Your task to perform on an android device: Search for a new lipgloss Image 0: 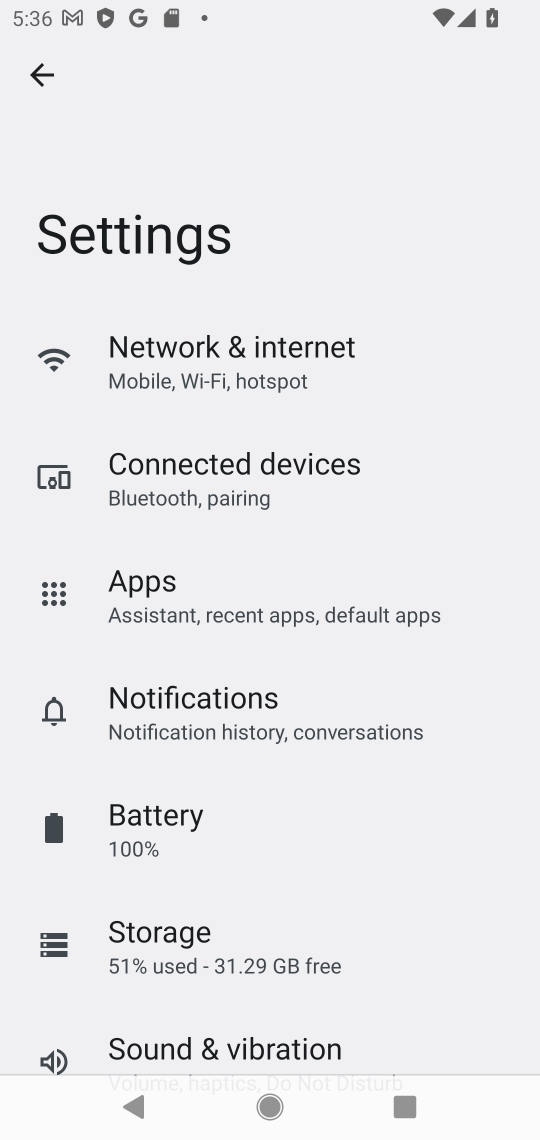
Step 0: press home button
Your task to perform on an android device: Search for a new lipgloss Image 1: 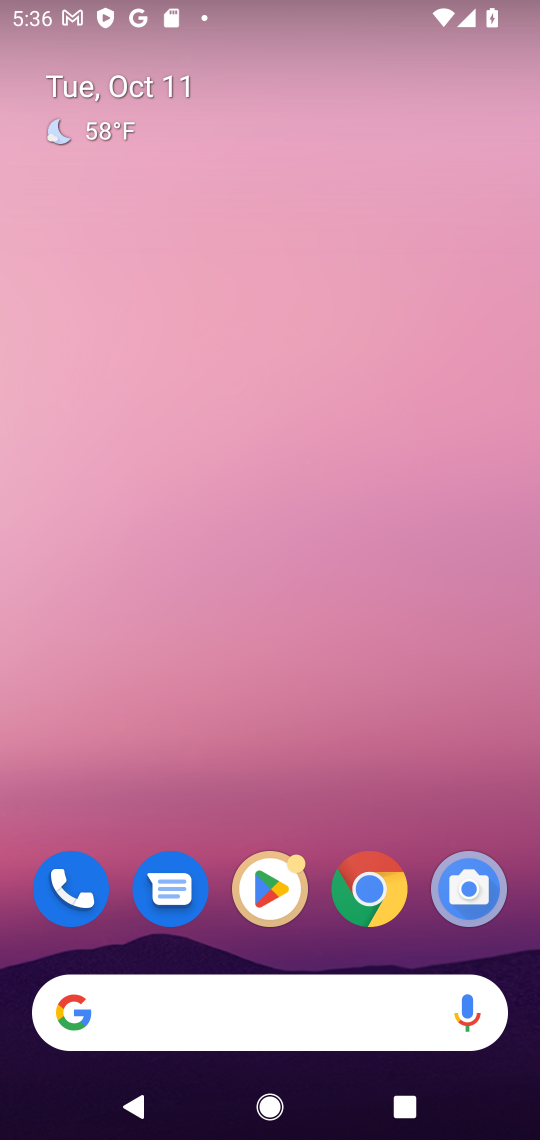
Step 1: drag from (250, 483) to (250, 398)
Your task to perform on an android device: Search for a new lipgloss Image 2: 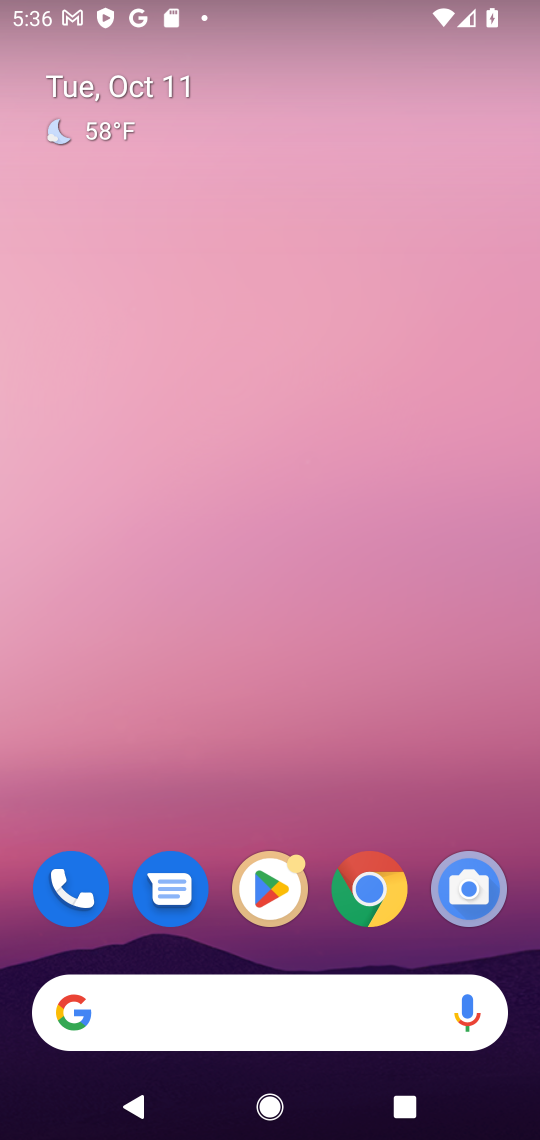
Step 2: drag from (254, 973) to (357, 155)
Your task to perform on an android device: Search for a new lipgloss Image 3: 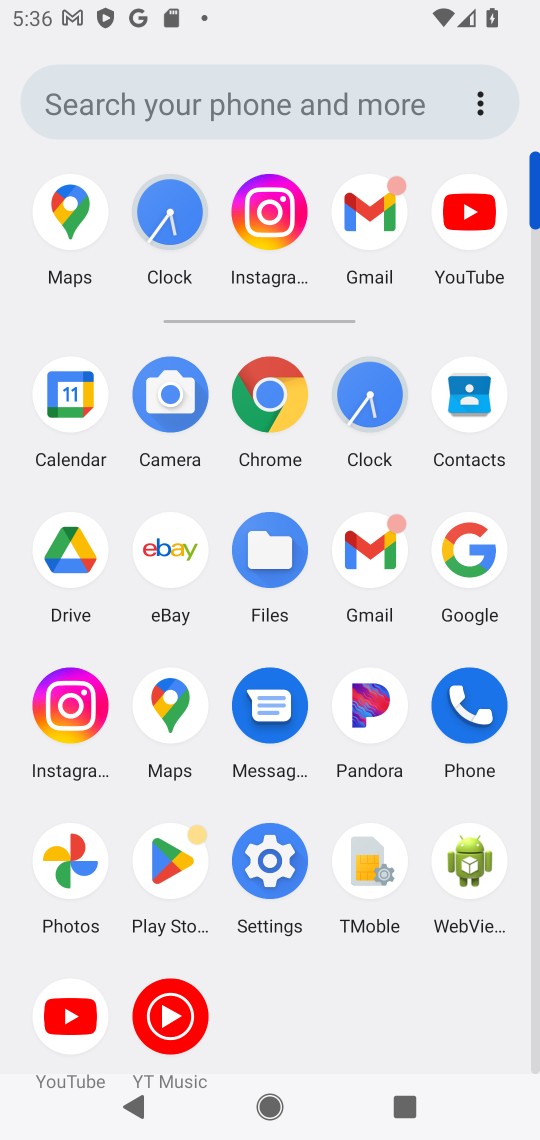
Step 3: click (460, 539)
Your task to perform on an android device: Search for a new lipgloss Image 4: 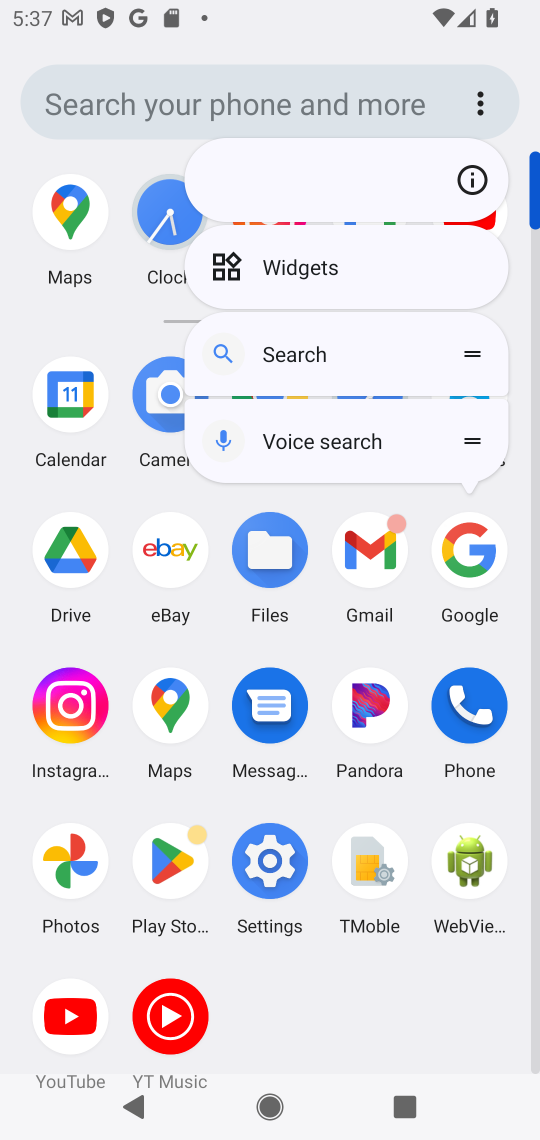
Step 4: click (462, 539)
Your task to perform on an android device: Search for a new lipgloss Image 5: 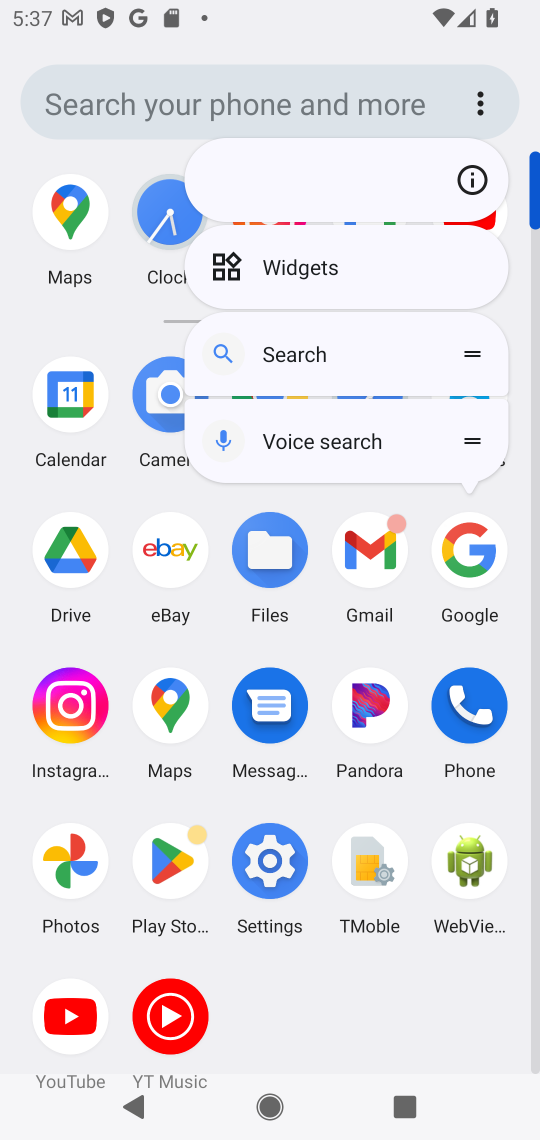
Step 5: click (459, 539)
Your task to perform on an android device: Search for a new lipgloss Image 6: 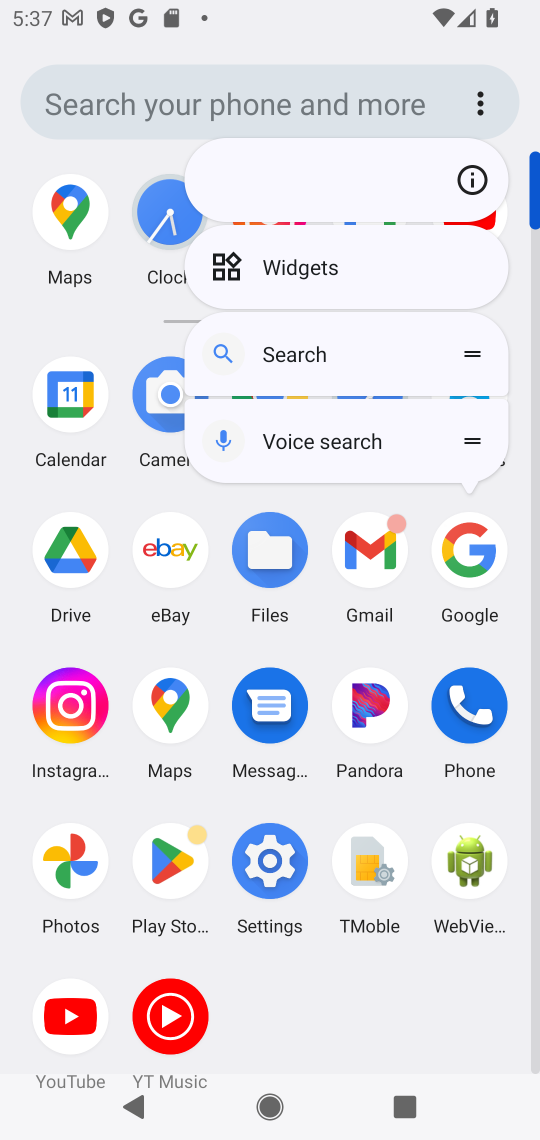
Step 6: click (487, 549)
Your task to perform on an android device: Search for a new lipgloss Image 7: 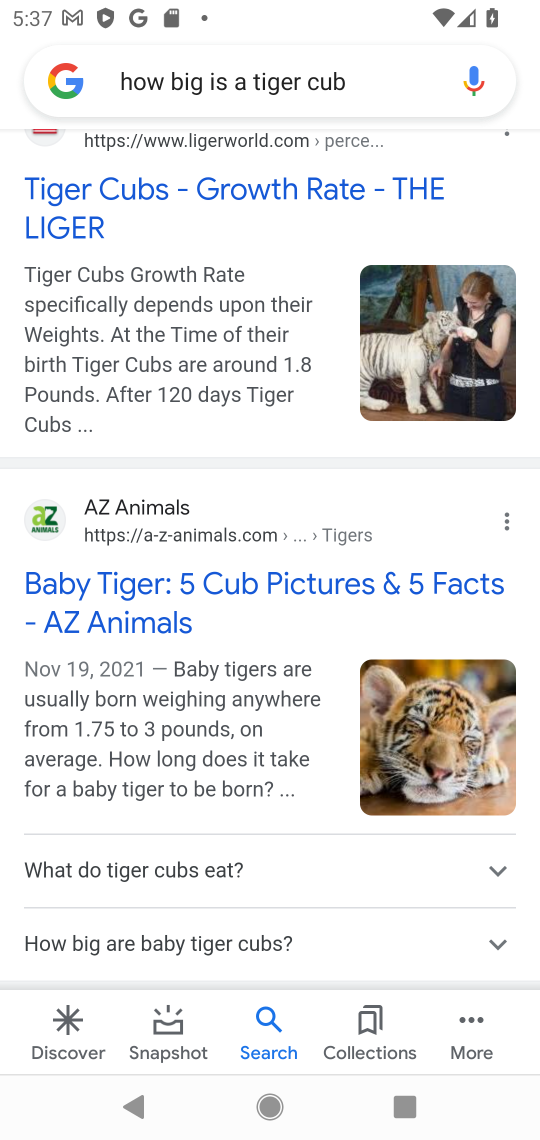
Step 7: click (318, 94)
Your task to perform on an android device: Search for a new lipgloss Image 8: 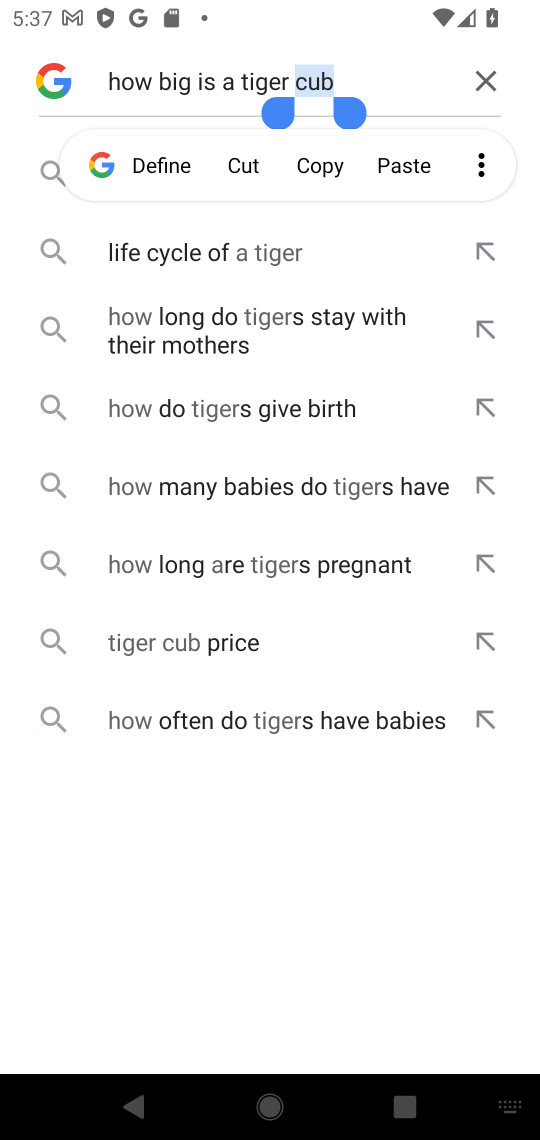
Step 8: click (490, 80)
Your task to perform on an android device: Search for a new lipgloss Image 9: 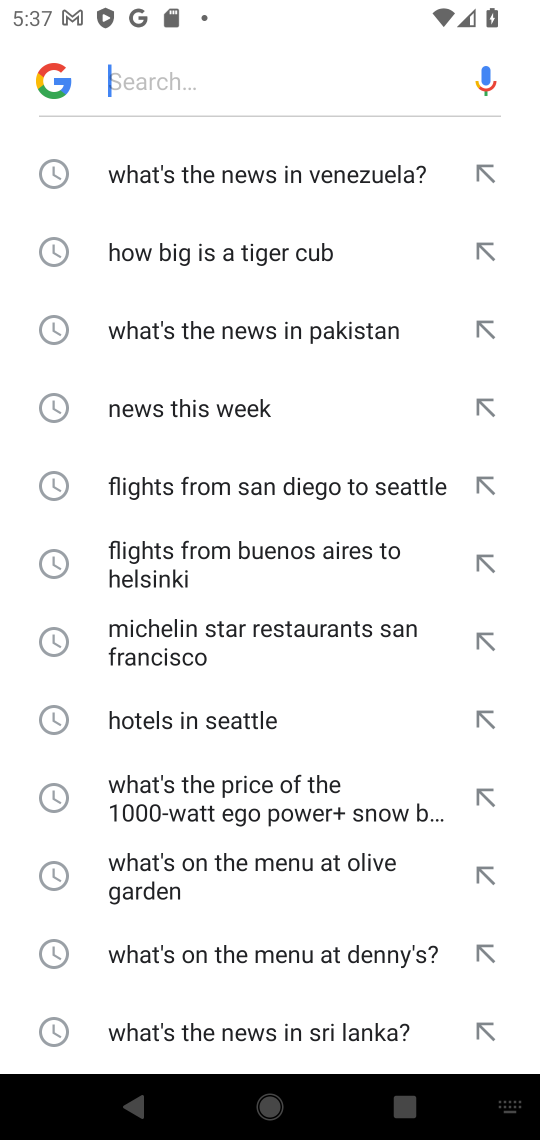
Step 9: click (287, 74)
Your task to perform on an android device: Search for a new lipgloss Image 10: 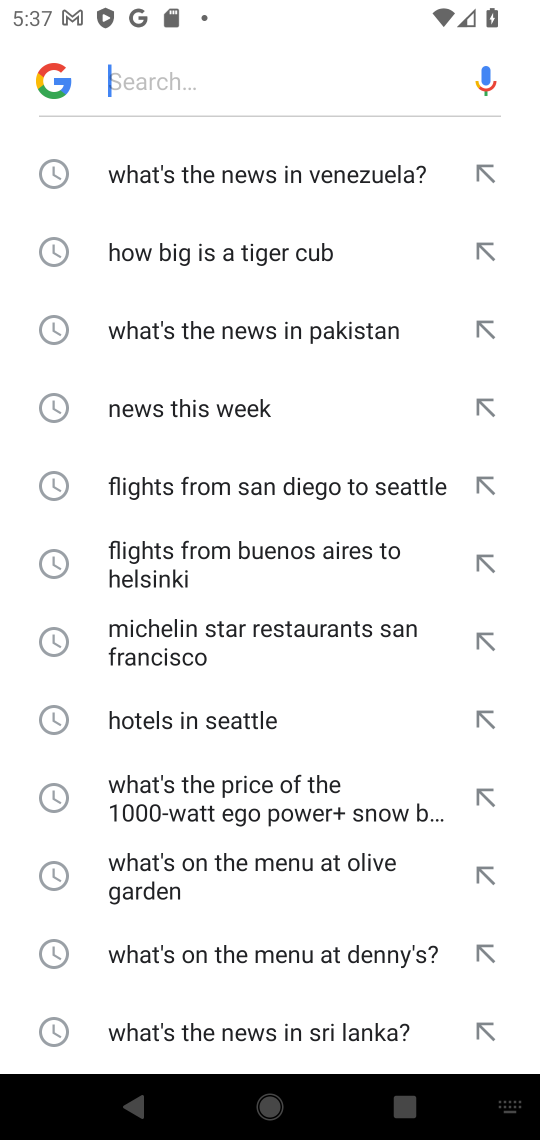
Step 10: type "Search for a new lipgloss "
Your task to perform on an android device: Search for a new lipgloss Image 11: 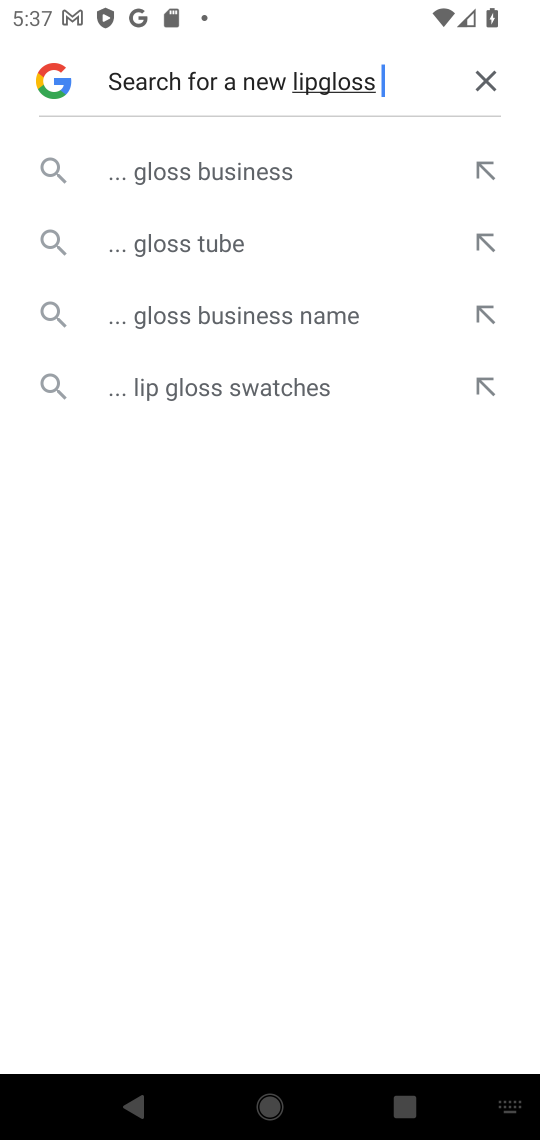
Step 11: click (255, 173)
Your task to perform on an android device: Search for a new lipgloss Image 12: 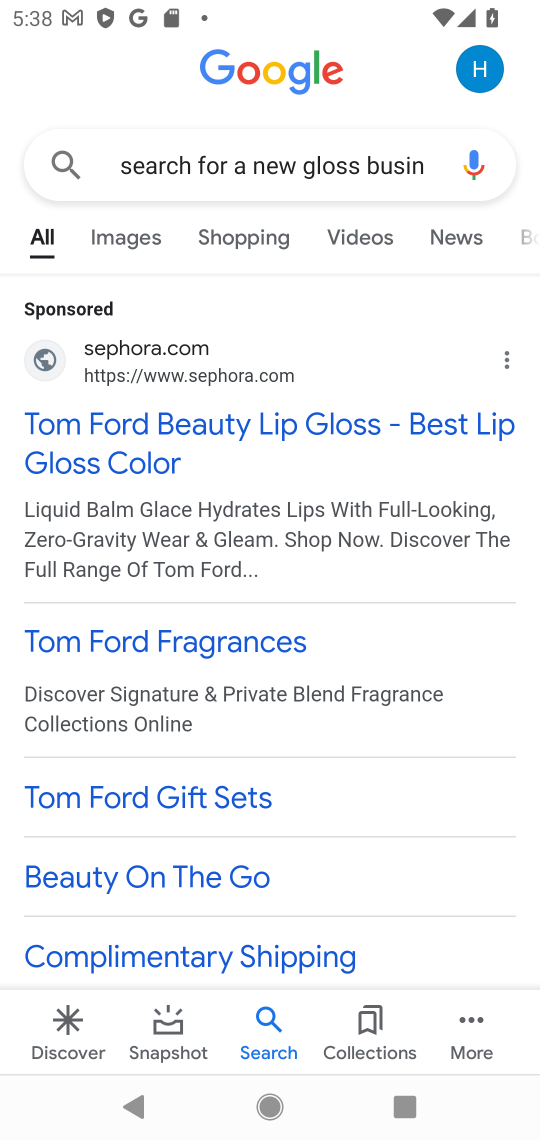
Step 12: click (187, 431)
Your task to perform on an android device: Search for a new lipgloss Image 13: 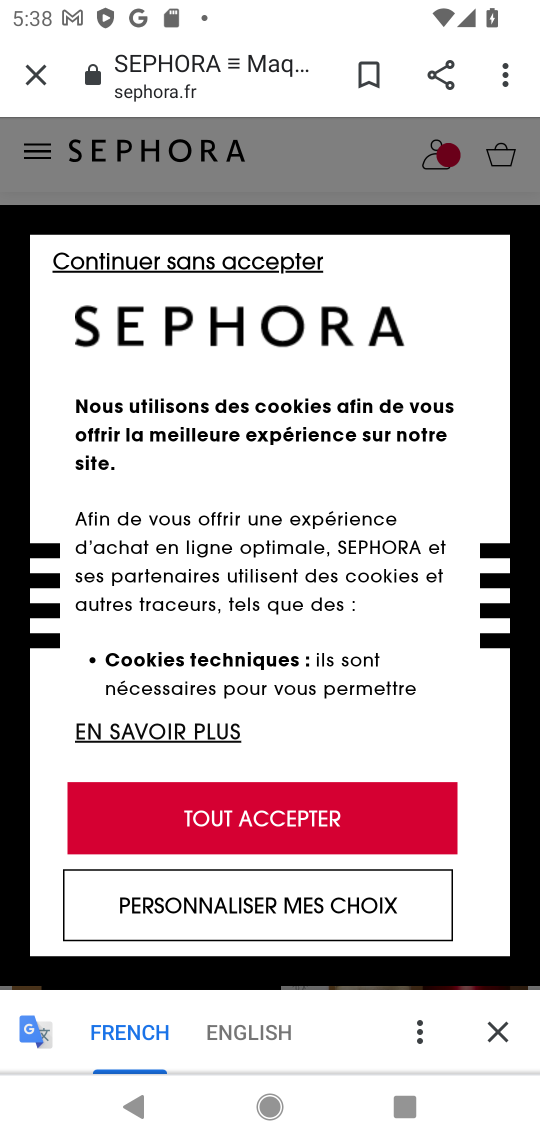
Step 13: click (484, 1035)
Your task to perform on an android device: Search for a new lipgloss Image 14: 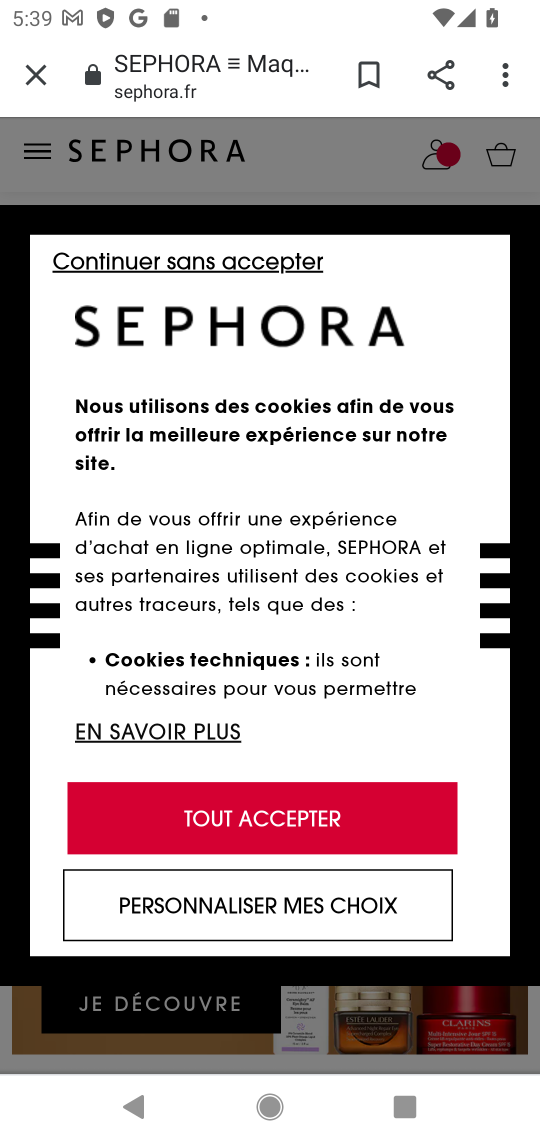
Step 14: click (226, 808)
Your task to perform on an android device: Search for a new lipgloss Image 15: 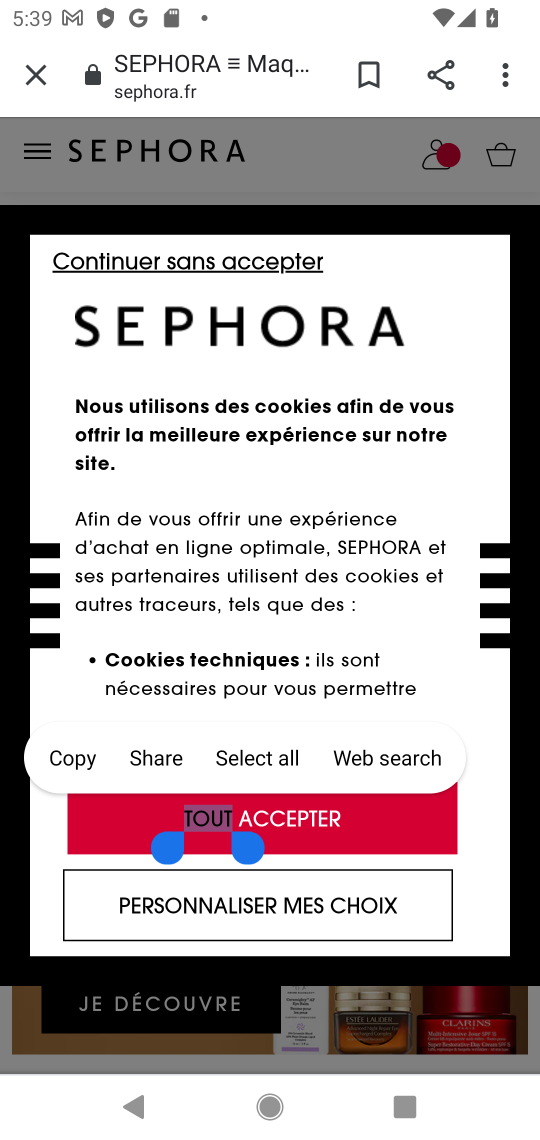
Step 15: click (269, 802)
Your task to perform on an android device: Search for a new lipgloss Image 16: 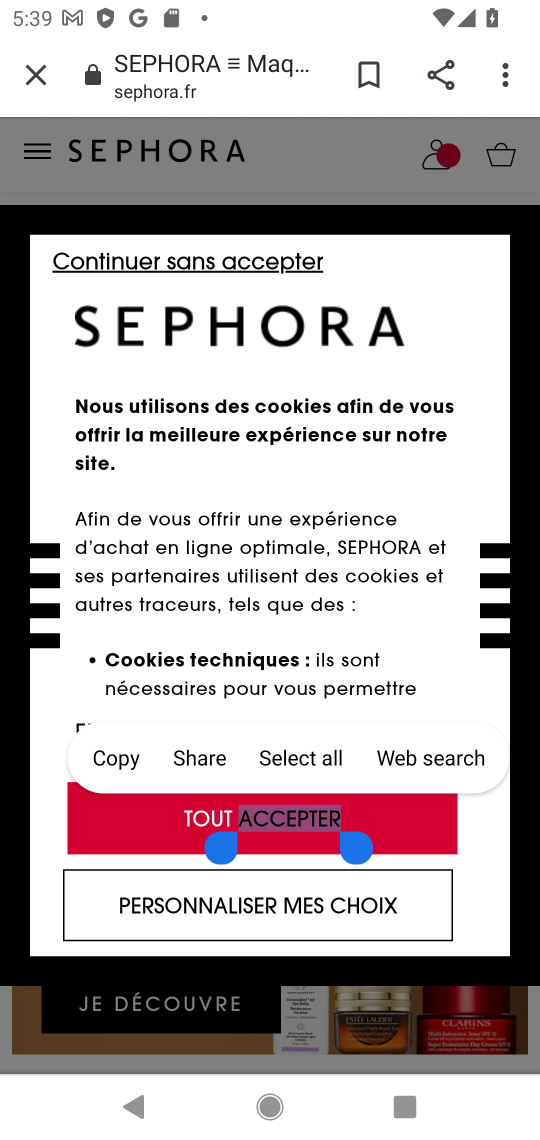
Step 16: click (282, 822)
Your task to perform on an android device: Search for a new lipgloss Image 17: 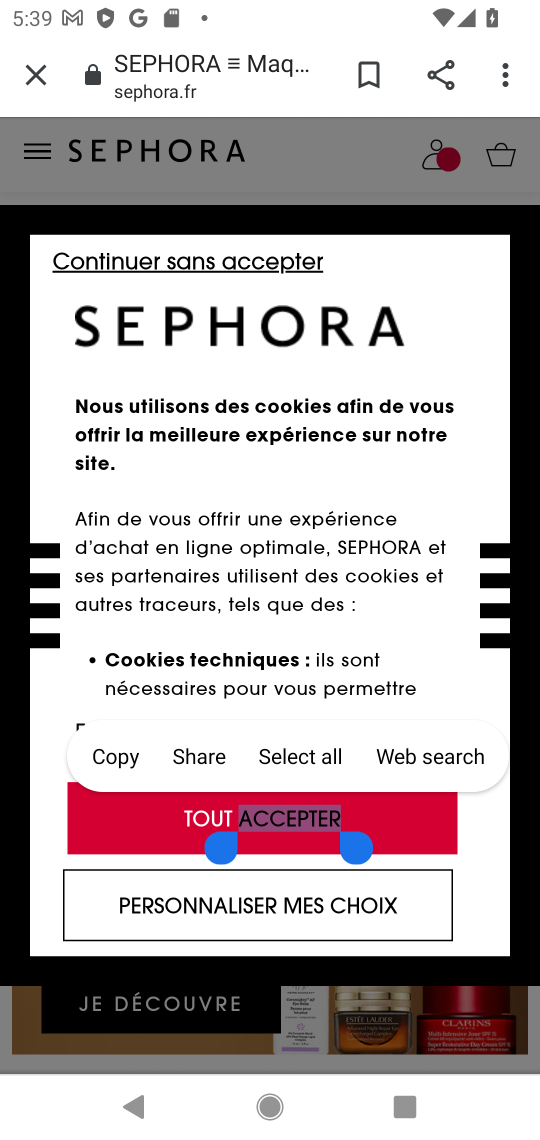
Step 17: click (254, 906)
Your task to perform on an android device: Search for a new lipgloss Image 18: 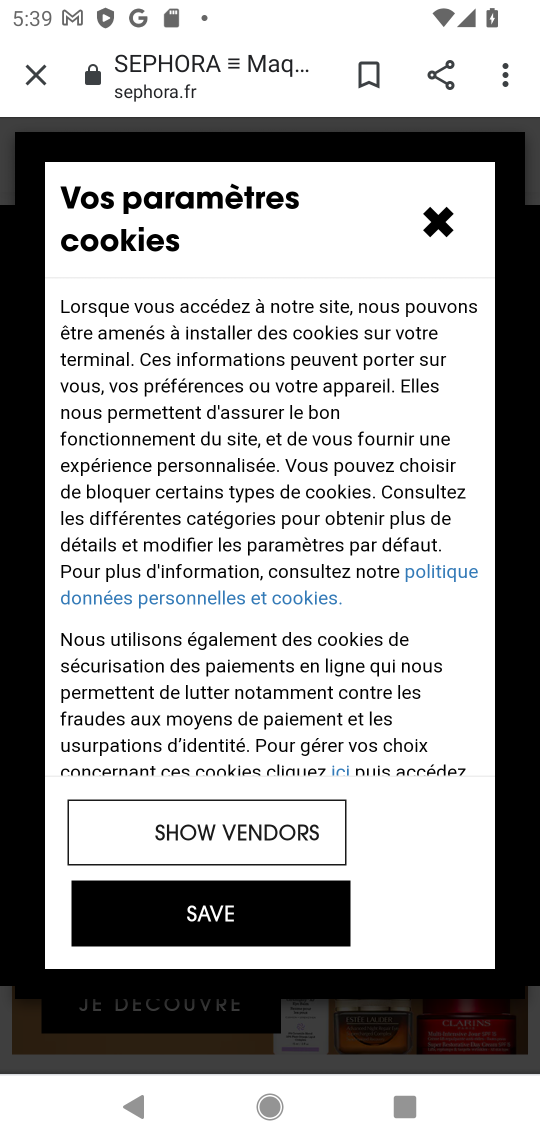
Step 18: click (451, 214)
Your task to perform on an android device: Search for a new lipgloss Image 19: 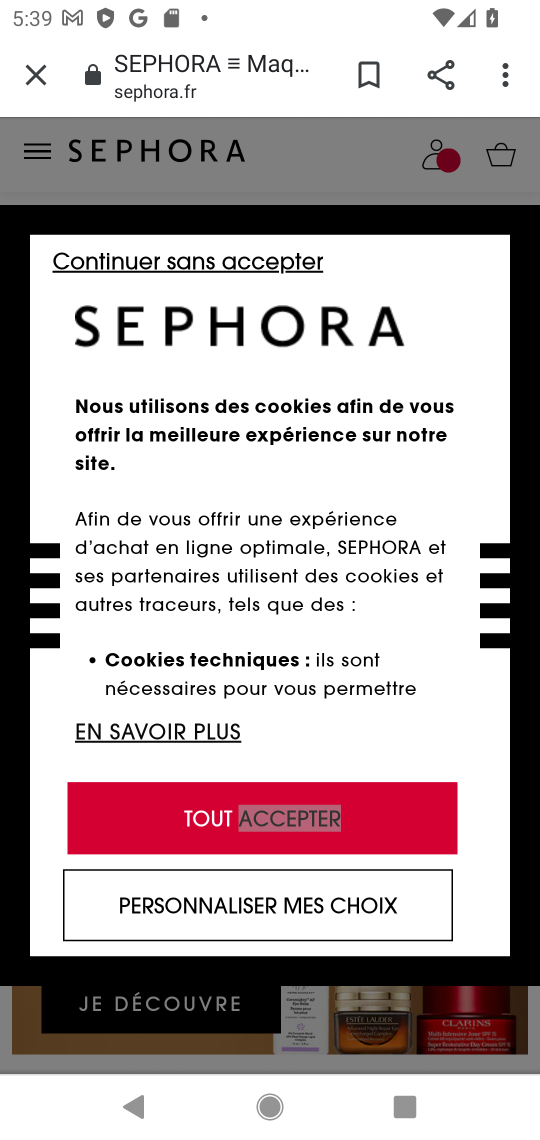
Step 19: click (190, 824)
Your task to perform on an android device: Search for a new lipgloss Image 20: 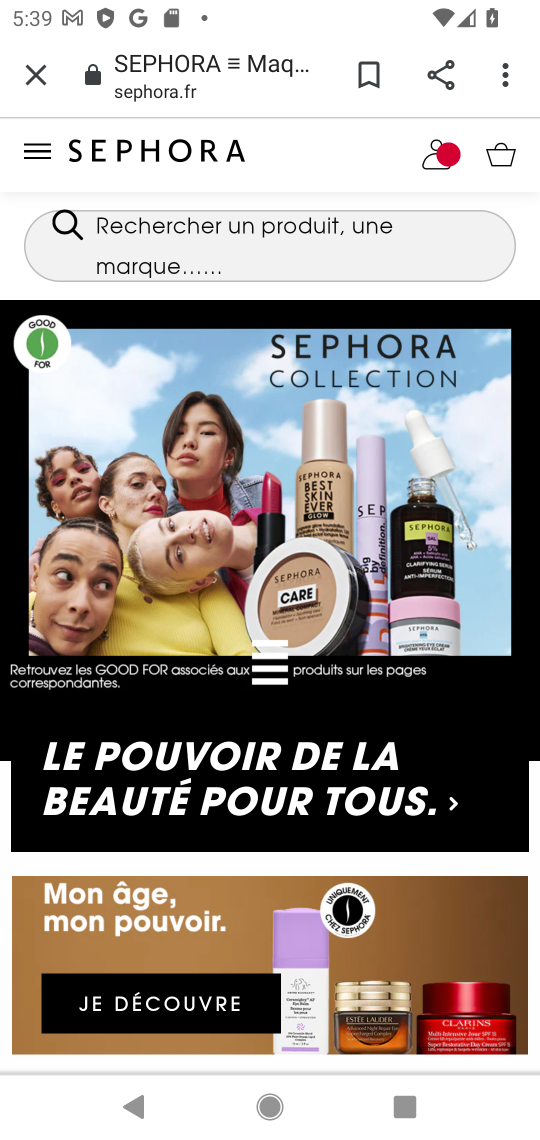
Step 20: drag from (351, 762) to (412, 305)
Your task to perform on an android device: Search for a new lipgloss Image 21: 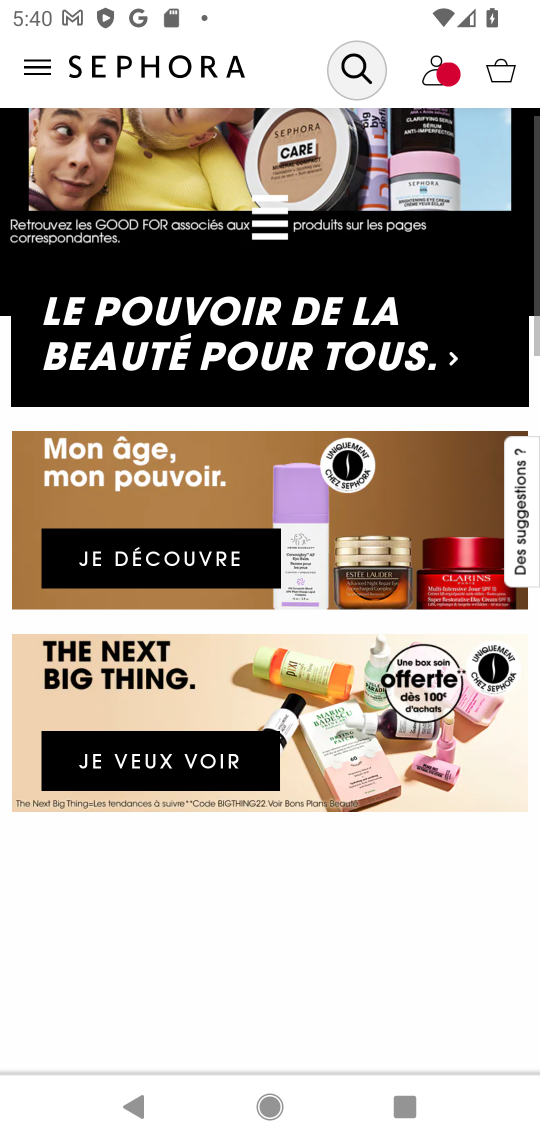
Step 21: drag from (349, 941) to (382, 388)
Your task to perform on an android device: Search for a new lipgloss Image 22: 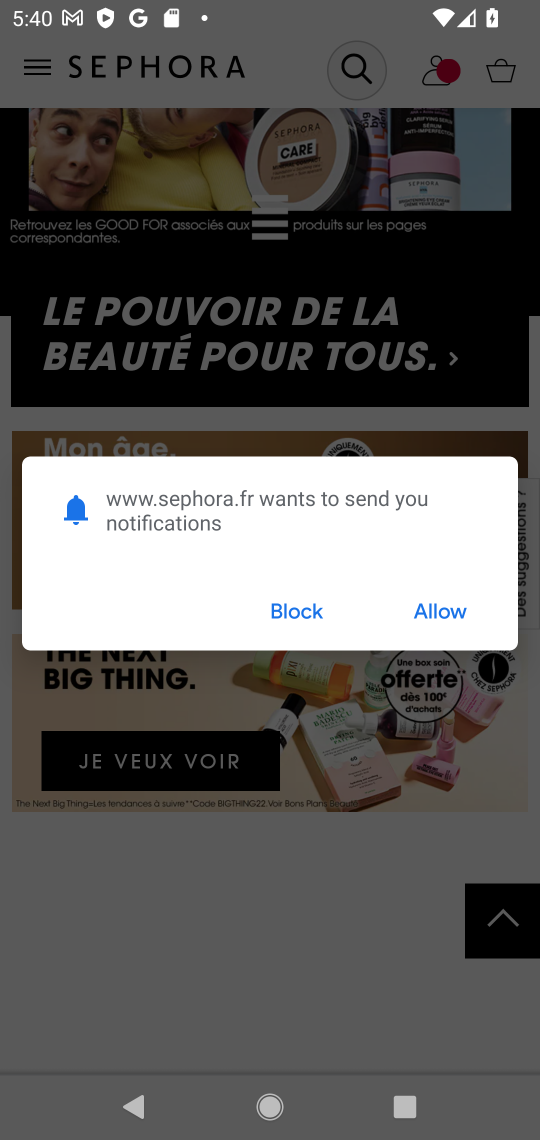
Step 22: click (434, 612)
Your task to perform on an android device: Search for a new lipgloss Image 23: 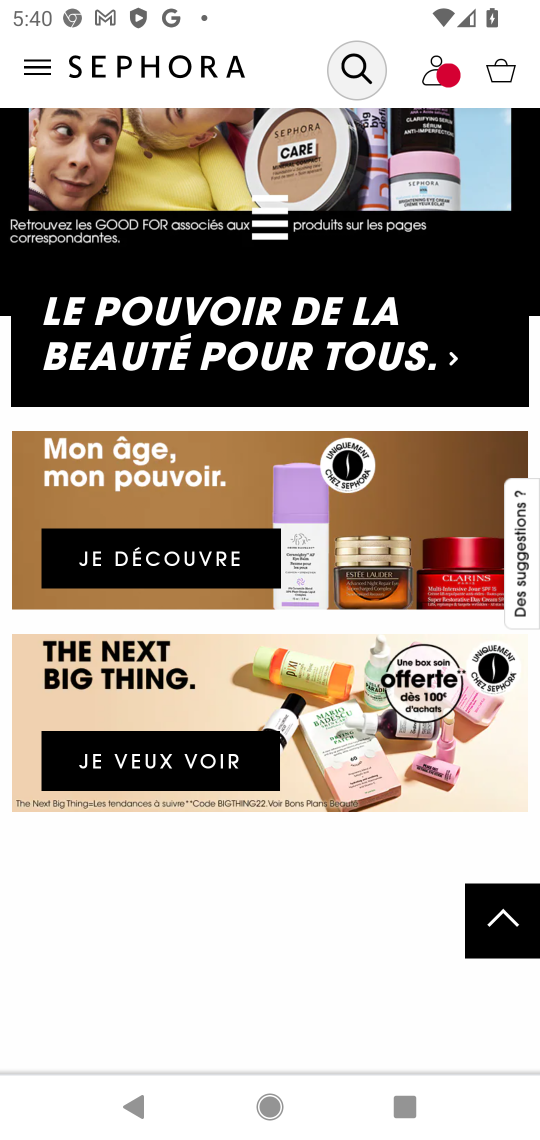
Step 23: task complete